Your task to perform on an android device: change the clock display to analog Image 0: 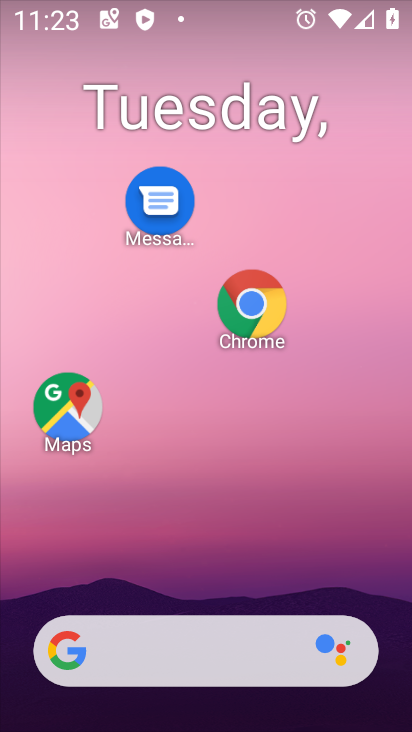
Step 0: drag from (270, 571) to (374, 146)
Your task to perform on an android device: change the clock display to analog Image 1: 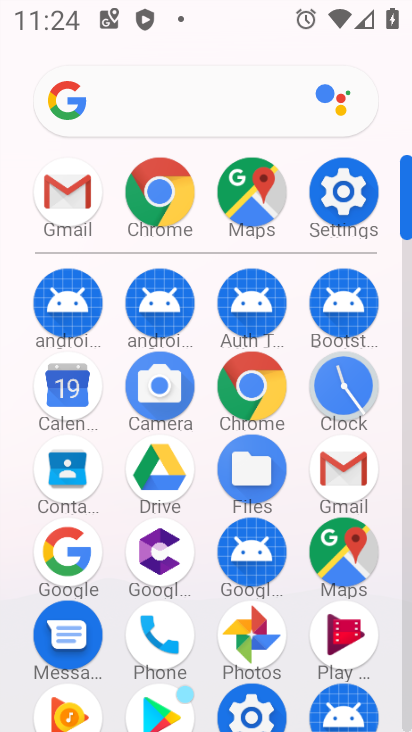
Step 1: click (351, 388)
Your task to perform on an android device: change the clock display to analog Image 2: 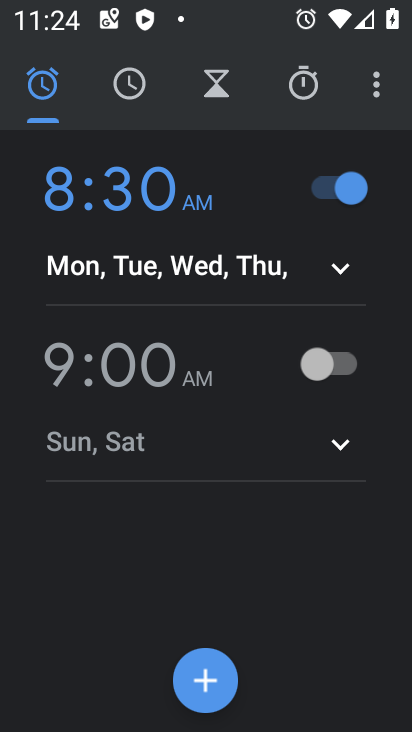
Step 2: click (371, 88)
Your task to perform on an android device: change the clock display to analog Image 3: 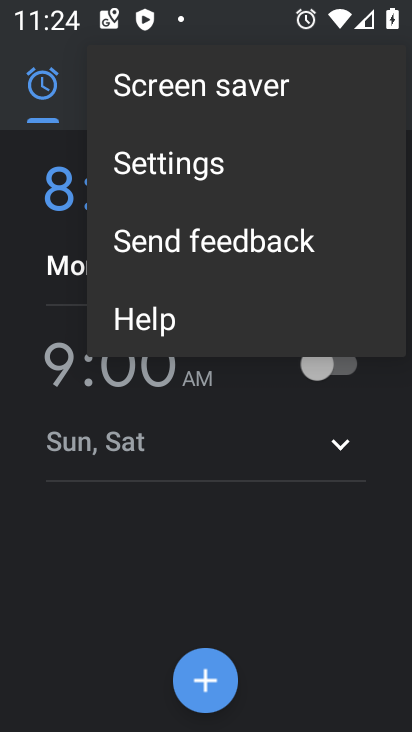
Step 3: click (253, 139)
Your task to perform on an android device: change the clock display to analog Image 4: 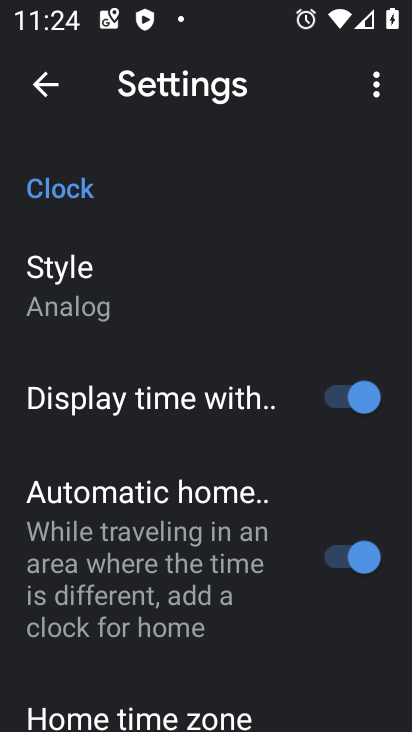
Step 4: click (120, 281)
Your task to perform on an android device: change the clock display to analog Image 5: 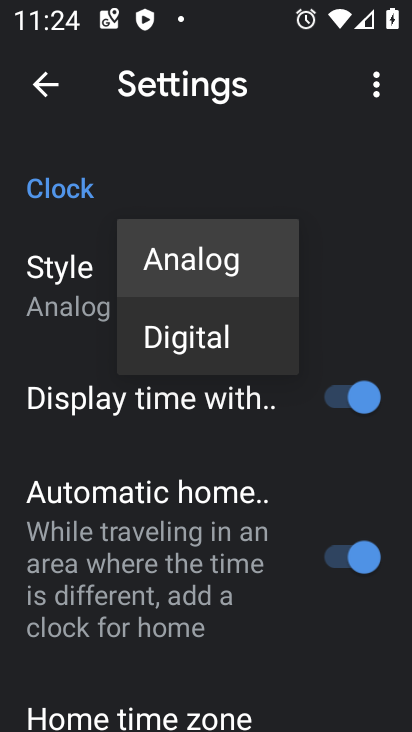
Step 5: click (179, 329)
Your task to perform on an android device: change the clock display to analog Image 6: 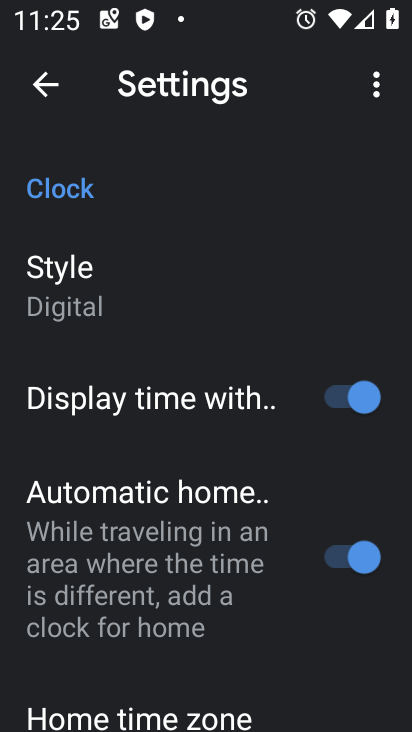
Step 6: task complete